Your task to perform on an android device: Turn on the flashlight Image 0: 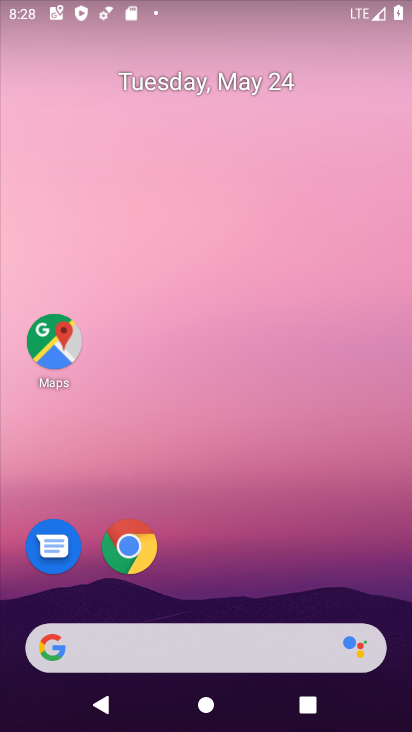
Step 0: drag from (264, 546) to (256, 30)
Your task to perform on an android device: Turn on the flashlight Image 1: 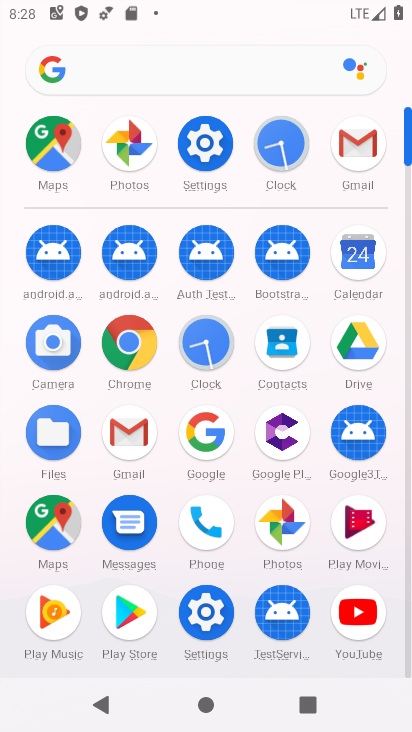
Step 1: click (203, 135)
Your task to perform on an android device: Turn on the flashlight Image 2: 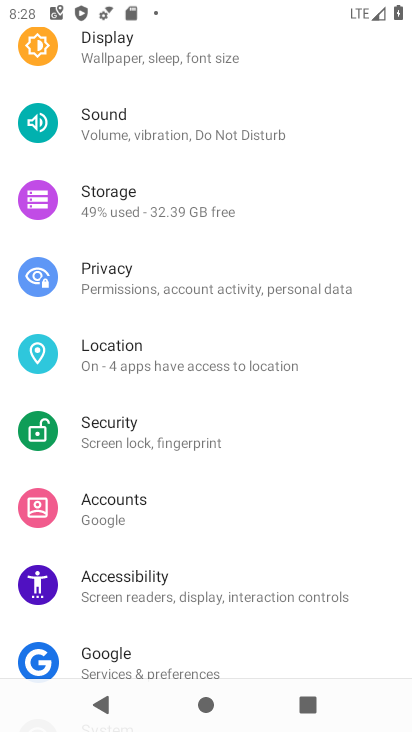
Step 2: drag from (193, 183) to (201, 612)
Your task to perform on an android device: Turn on the flashlight Image 3: 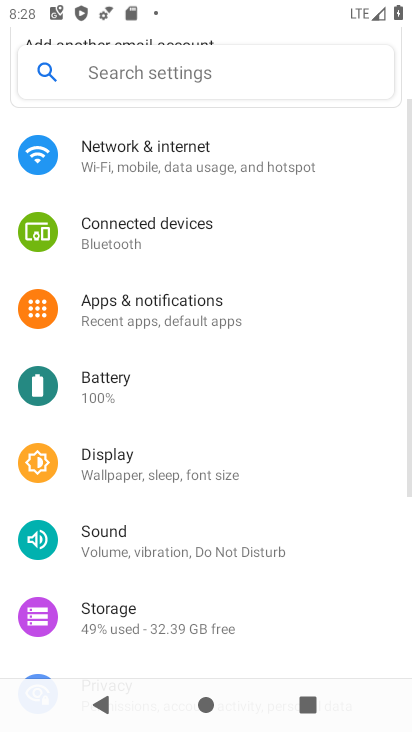
Step 3: drag from (228, 330) to (226, 619)
Your task to perform on an android device: Turn on the flashlight Image 4: 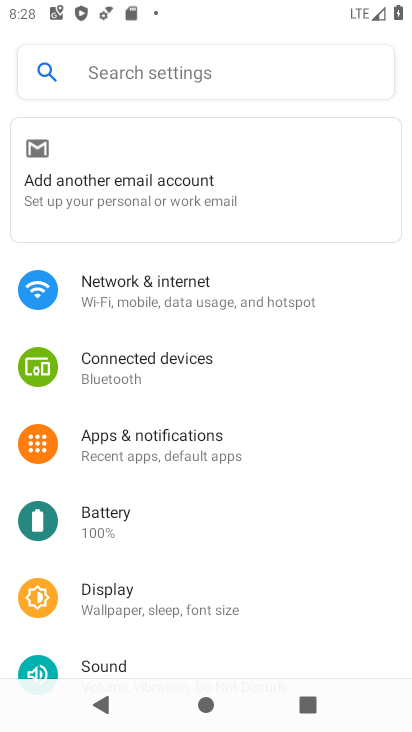
Step 4: click (290, 61)
Your task to perform on an android device: Turn on the flashlight Image 5: 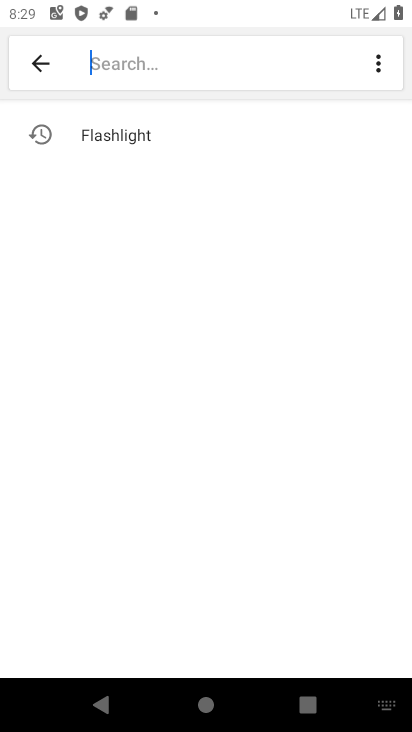
Step 5: click (131, 139)
Your task to perform on an android device: Turn on the flashlight Image 6: 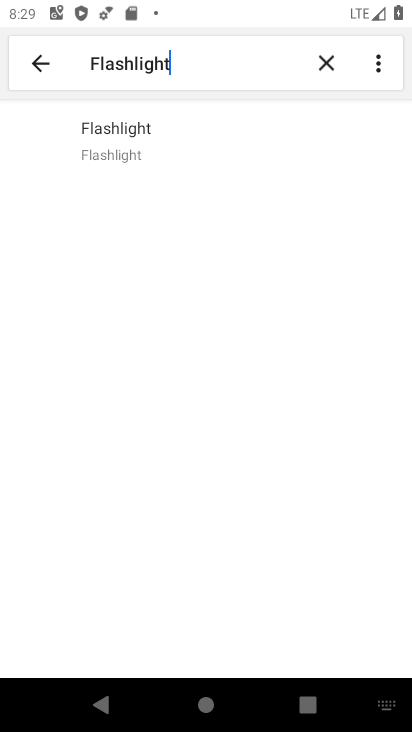
Step 6: click (131, 138)
Your task to perform on an android device: Turn on the flashlight Image 7: 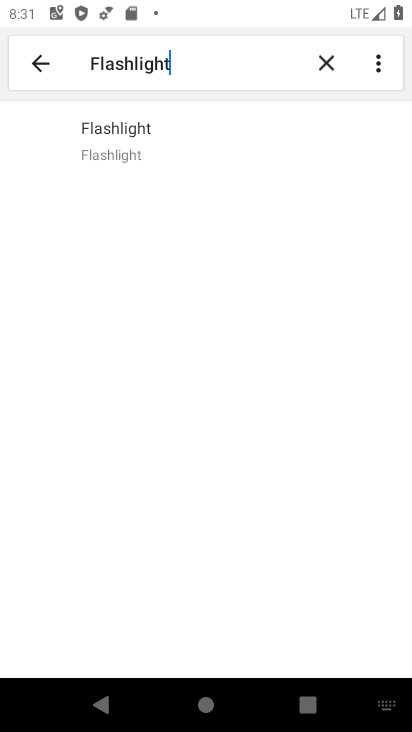
Step 7: task complete